Your task to perform on an android device: uninstall "Indeed Job Search" Image 0: 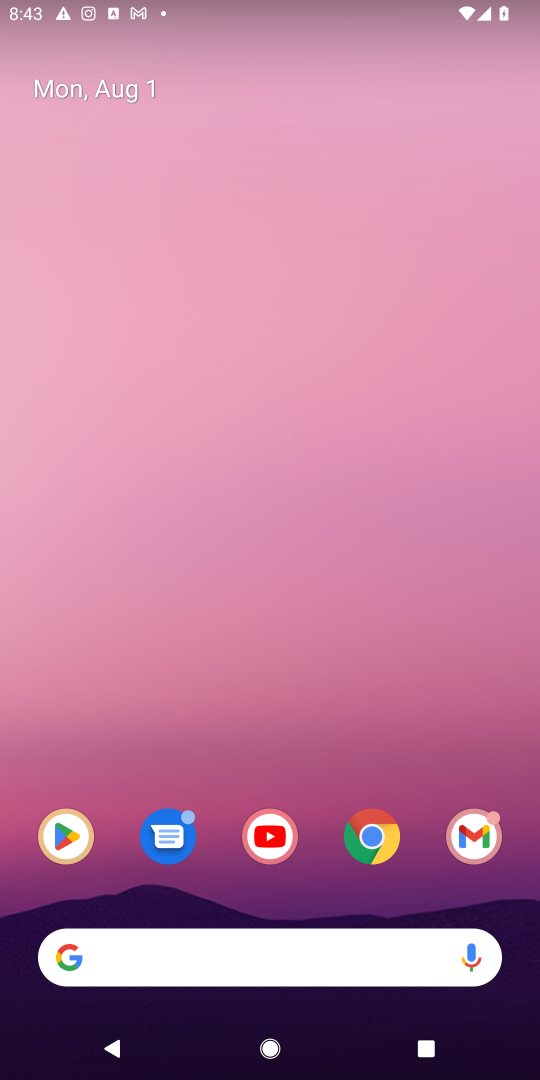
Step 0: press home button
Your task to perform on an android device: uninstall "Indeed Job Search" Image 1: 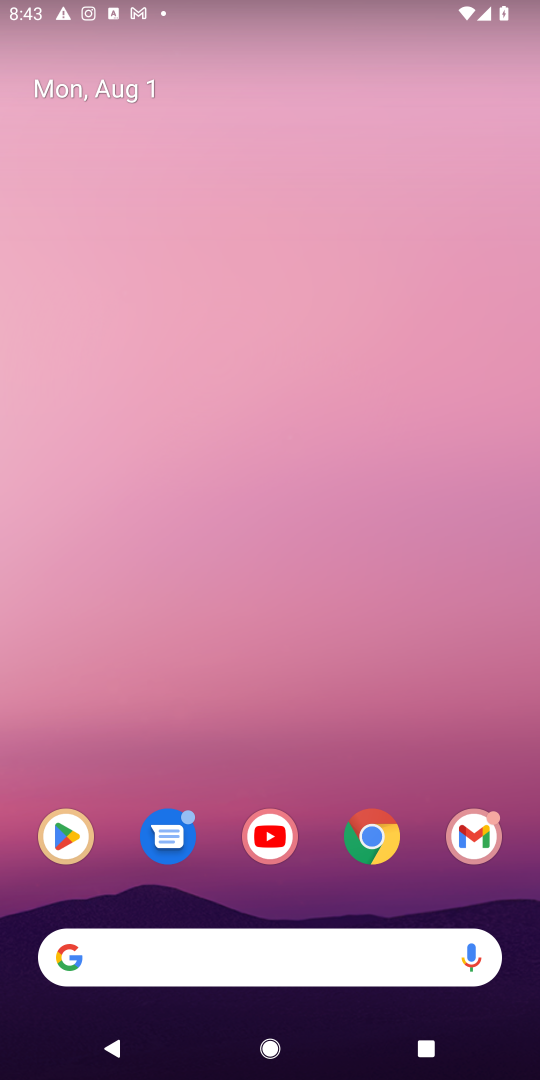
Step 1: click (71, 840)
Your task to perform on an android device: uninstall "Indeed Job Search" Image 2: 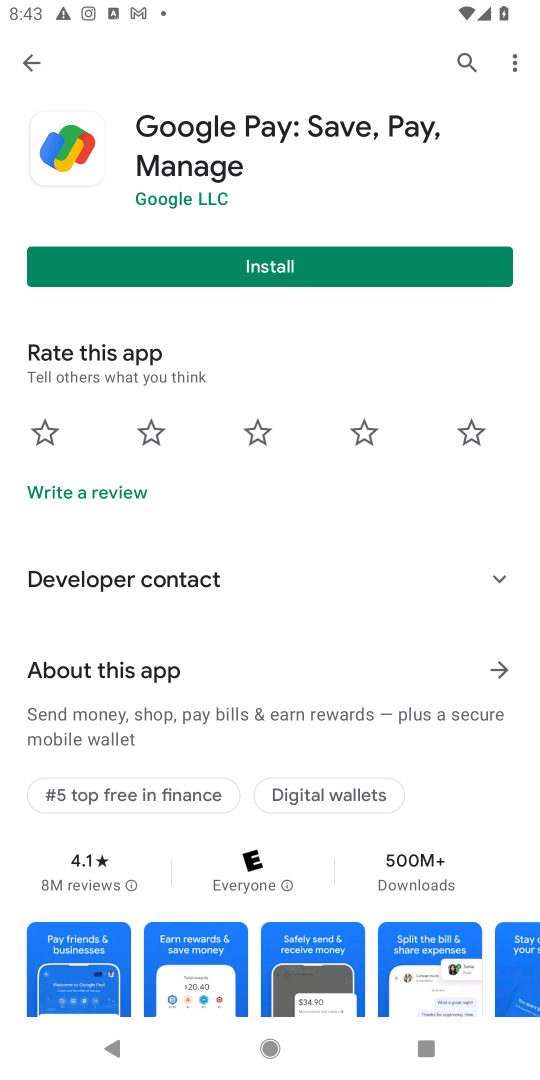
Step 2: click (467, 64)
Your task to perform on an android device: uninstall "Indeed Job Search" Image 3: 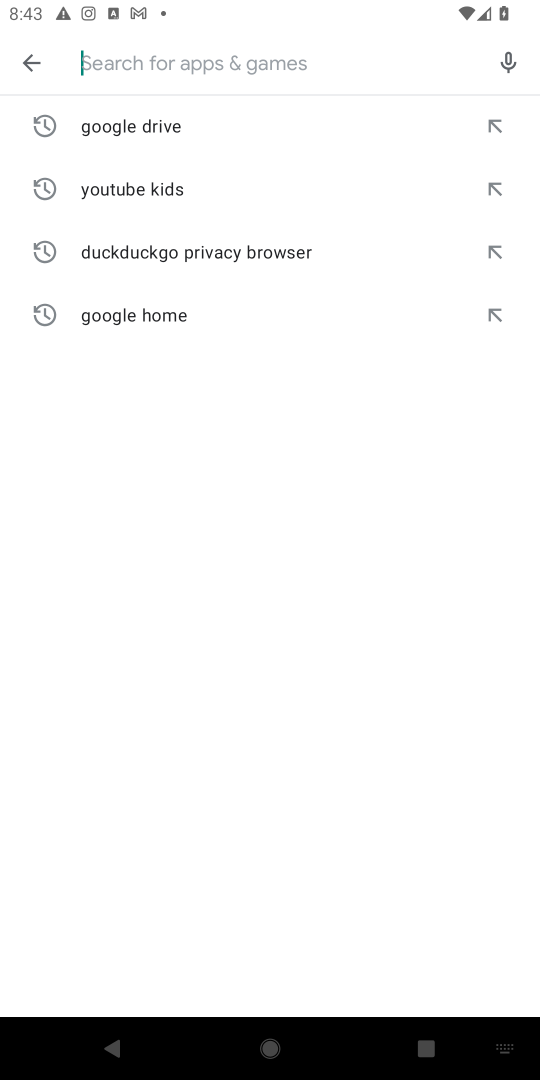
Step 3: type "Indeed Job Search"
Your task to perform on an android device: uninstall "Indeed Job Search" Image 4: 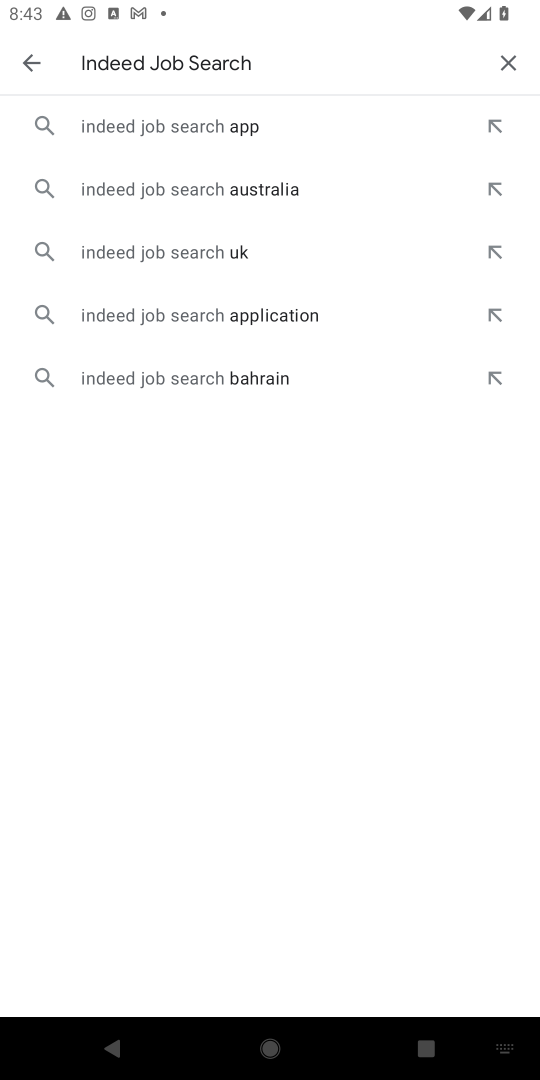
Step 4: click (149, 123)
Your task to perform on an android device: uninstall "Indeed Job Search" Image 5: 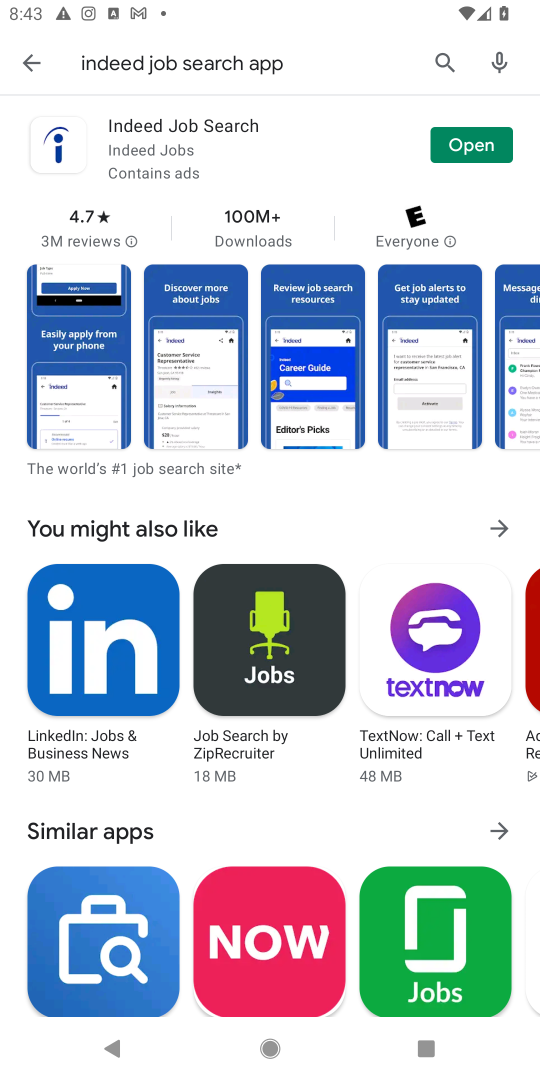
Step 5: click (147, 149)
Your task to perform on an android device: uninstall "Indeed Job Search" Image 6: 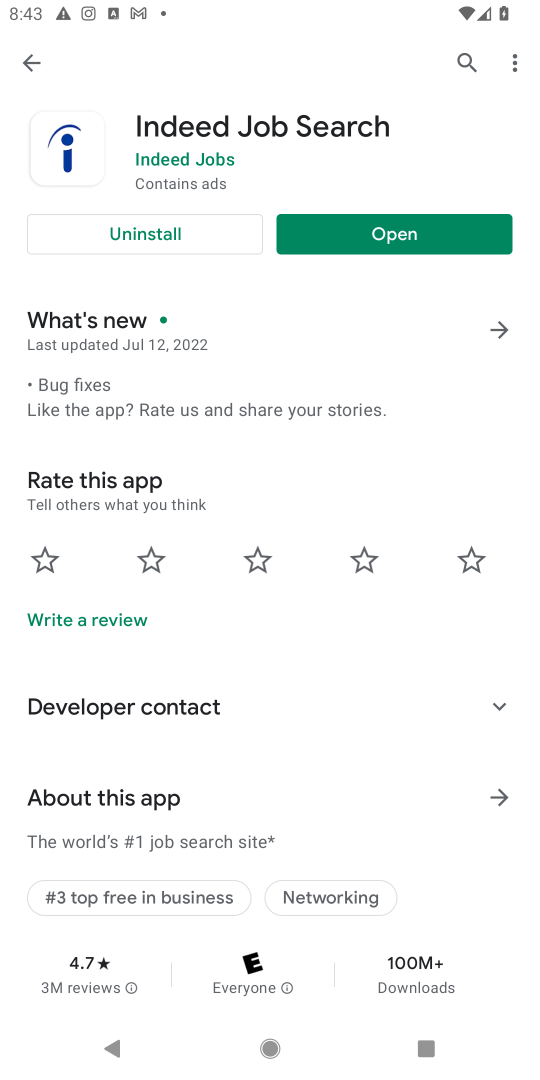
Step 6: click (160, 229)
Your task to perform on an android device: uninstall "Indeed Job Search" Image 7: 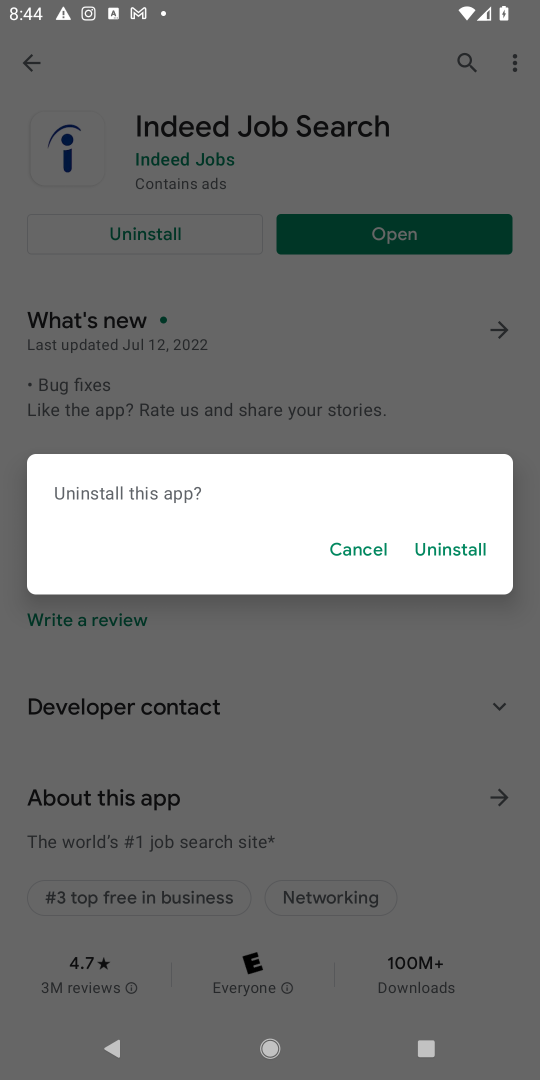
Step 7: click (445, 551)
Your task to perform on an android device: uninstall "Indeed Job Search" Image 8: 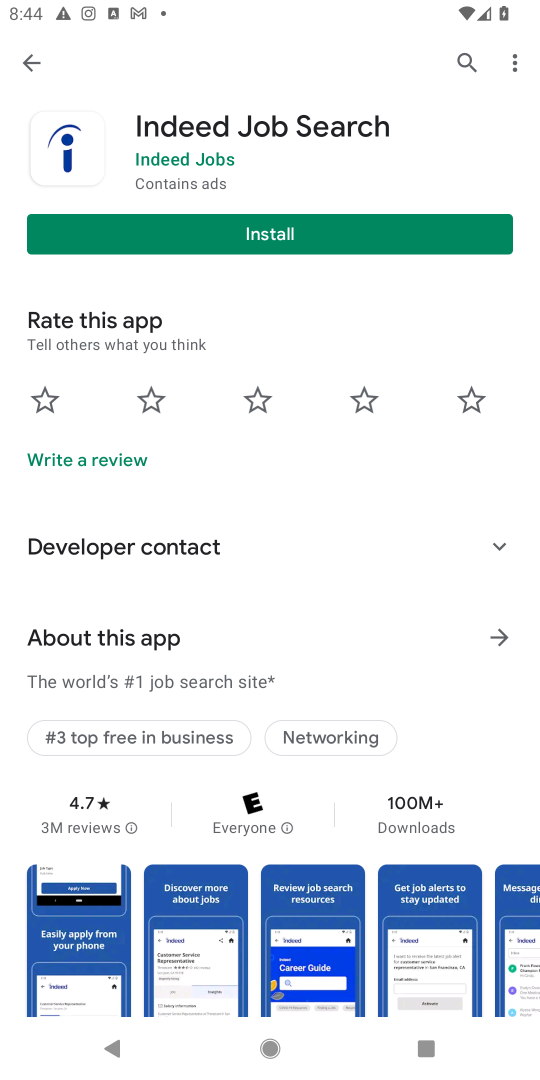
Step 8: task complete